Your task to perform on an android device: toggle pop-ups in chrome Image 0: 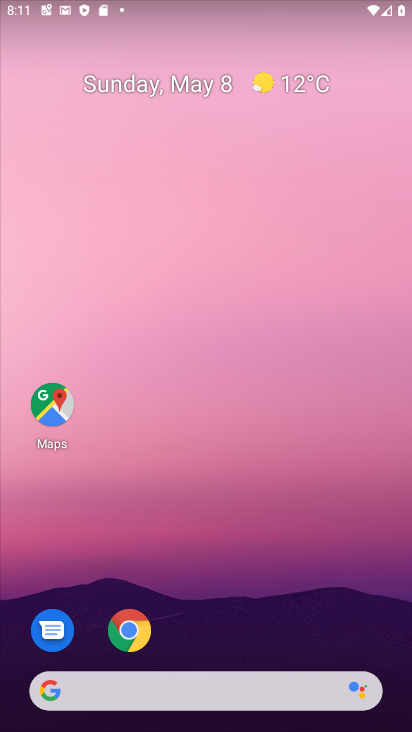
Step 0: click (141, 631)
Your task to perform on an android device: toggle pop-ups in chrome Image 1: 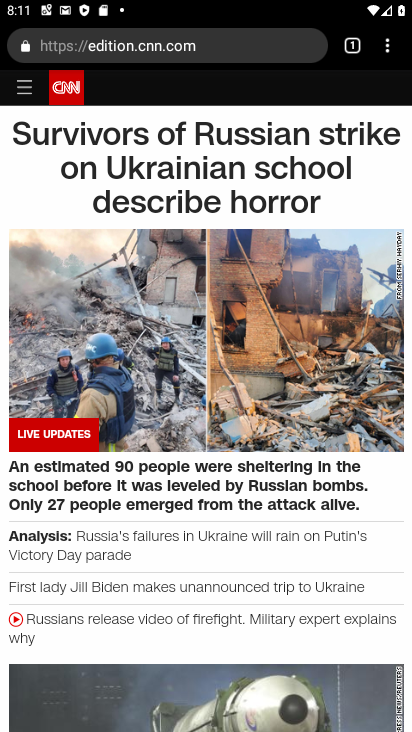
Step 1: click (383, 50)
Your task to perform on an android device: toggle pop-ups in chrome Image 2: 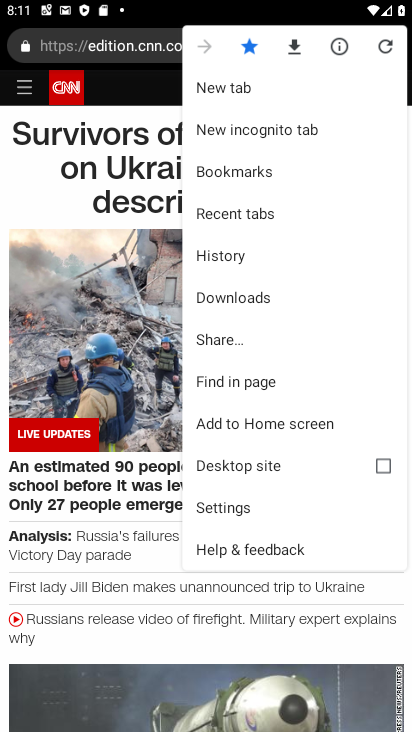
Step 2: click (210, 501)
Your task to perform on an android device: toggle pop-ups in chrome Image 3: 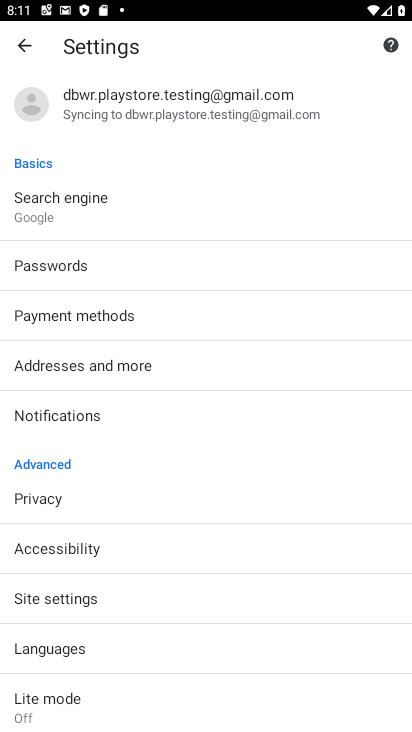
Step 3: click (118, 588)
Your task to perform on an android device: toggle pop-ups in chrome Image 4: 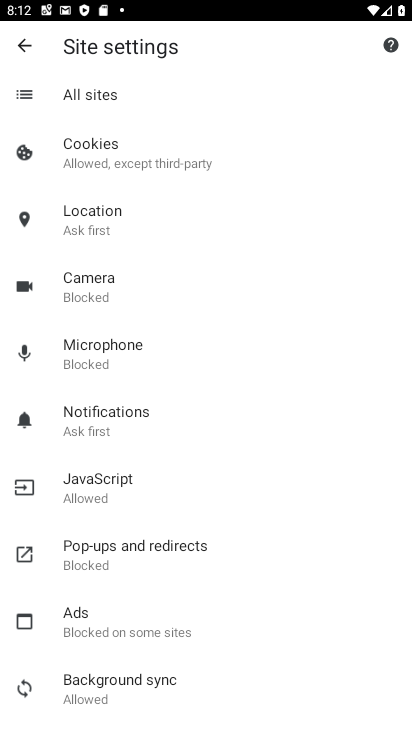
Step 4: click (123, 563)
Your task to perform on an android device: toggle pop-ups in chrome Image 5: 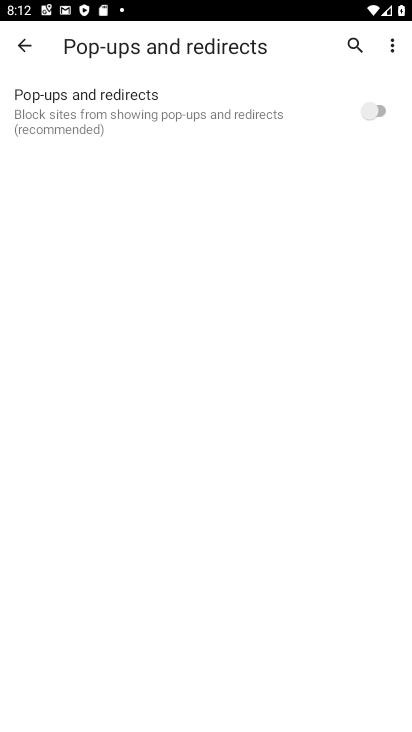
Step 5: click (377, 108)
Your task to perform on an android device: toggle pop-ups in chrome Image 6: 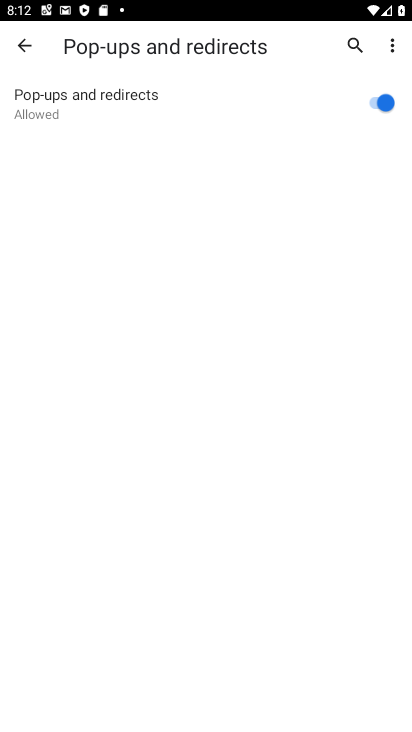
Step 6: task complete